Your task to perform on an android device: Add "duracell triple a" to the cart on newegg Image 0: 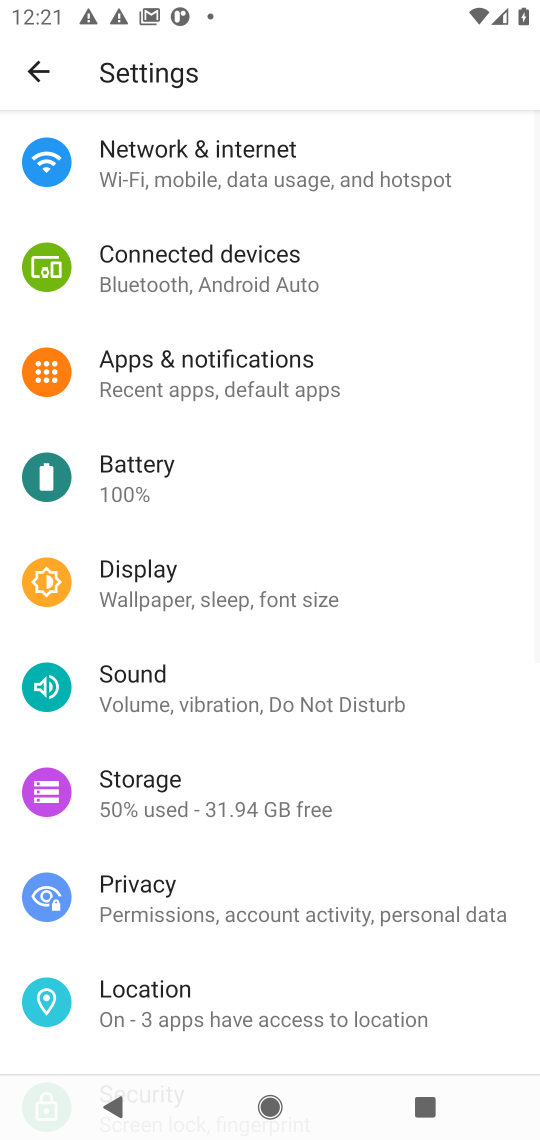
Step 0: press home button
Your task to perform on an android device: Add "duracell triple a" to the cart on newegg Image 1: 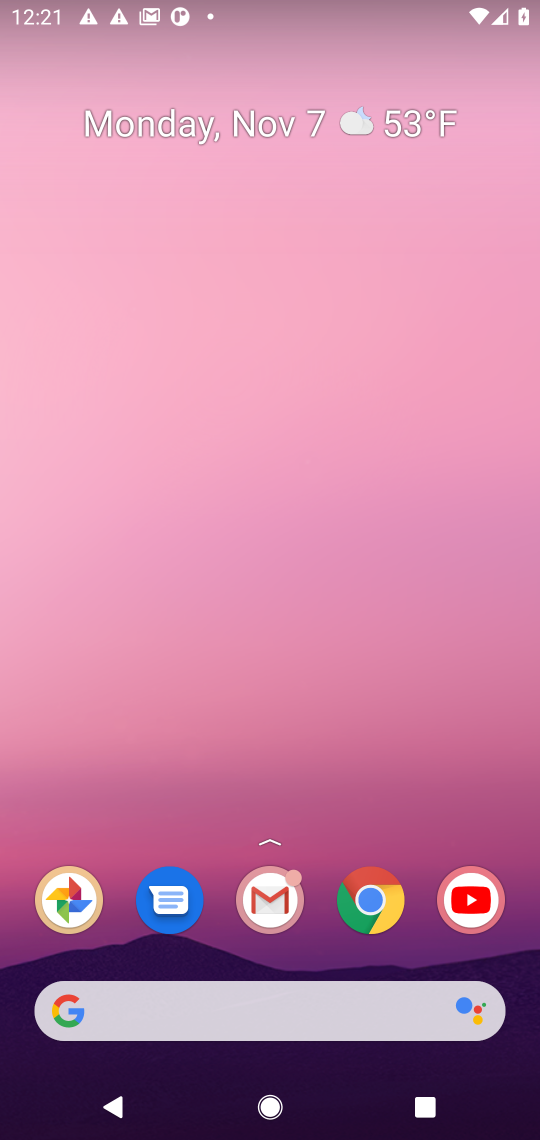
Step 1: click (385, 1003)
Your task to perform on an android device: Add "duracell triple a" to the cart on newegg Image 2: 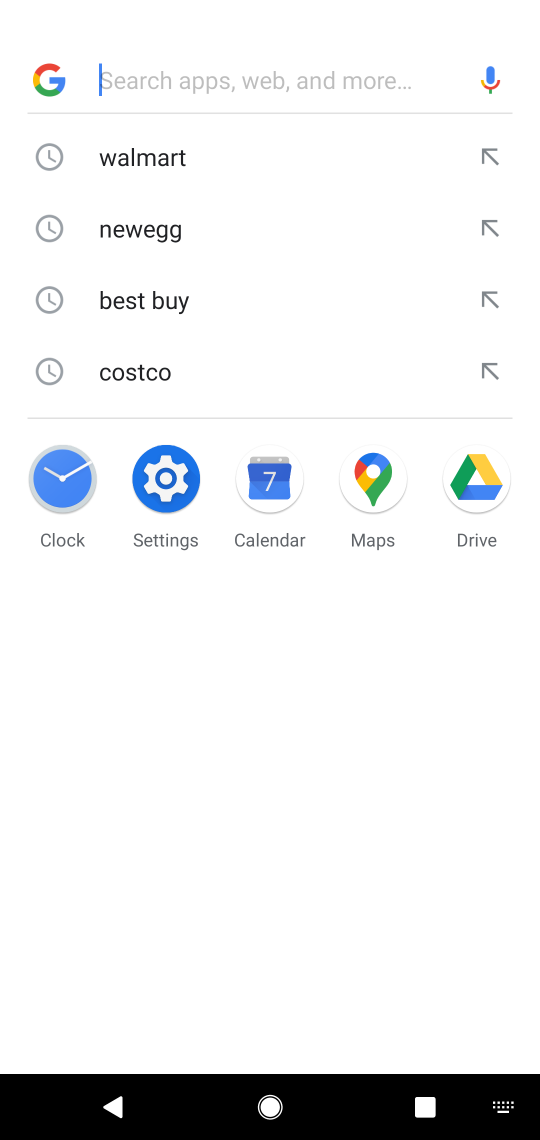
Step 2: click (220, 231)
Your task to perform on an android device: Add "duracell triple a" to the cart on newegg Image 3: 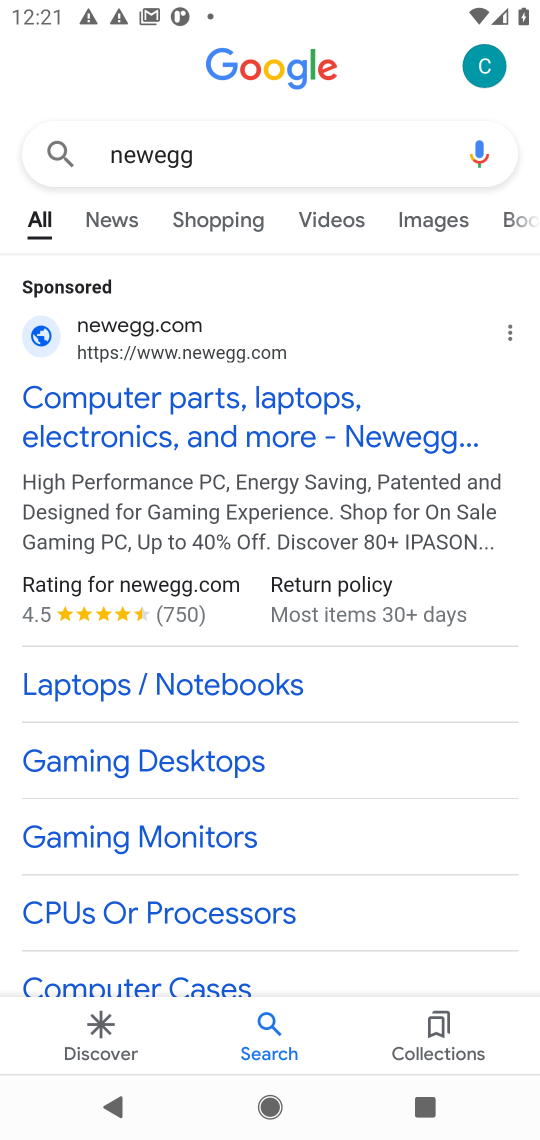
Step 3: click (153, 396)
Your task to perform on an android device: Add "duracell triple a" to the cart on newegg Image 4: 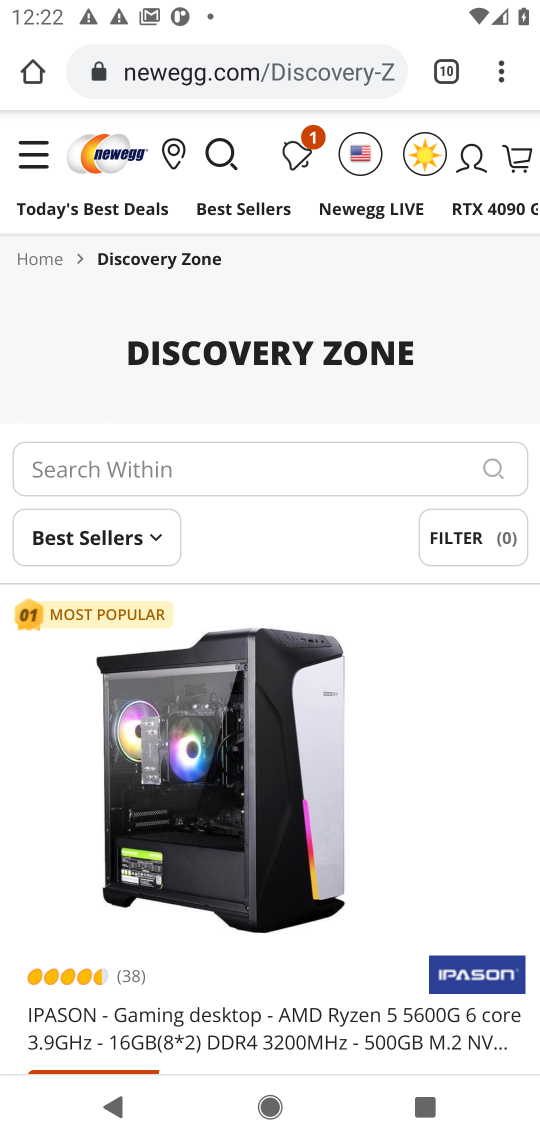
Step 4: task complete